Your task to perform on an android device: visit the assistant section in the google photos Image 0: 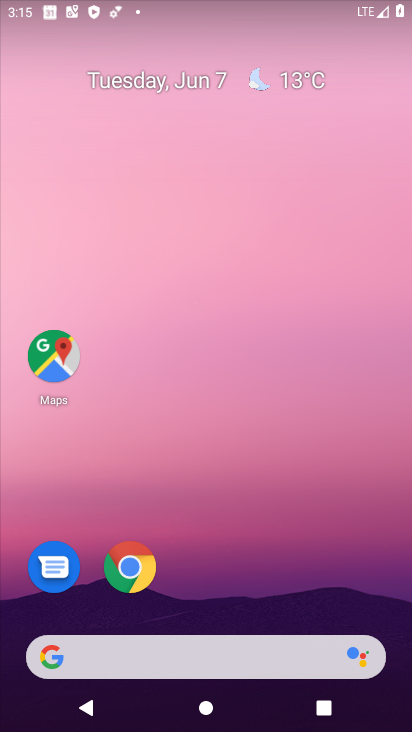
Step 0: drag from (242, 584) to (283, 118)
Your task to perform on an android device: visit the assistant section in the google photos Image 1: 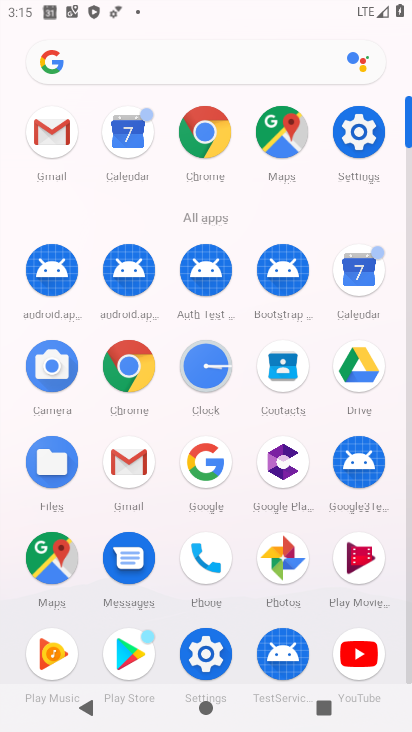
Step 1: click (287, 548)
Your task to perform on an android device: visit the assistant section in the google photos Image 2: 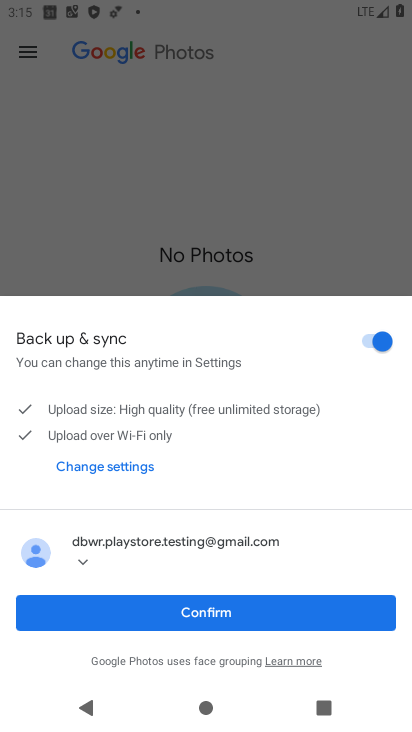
Step 2: click (152, 607)
Your task to perform on an android device: visit the assistant section in the google photos Image 3: 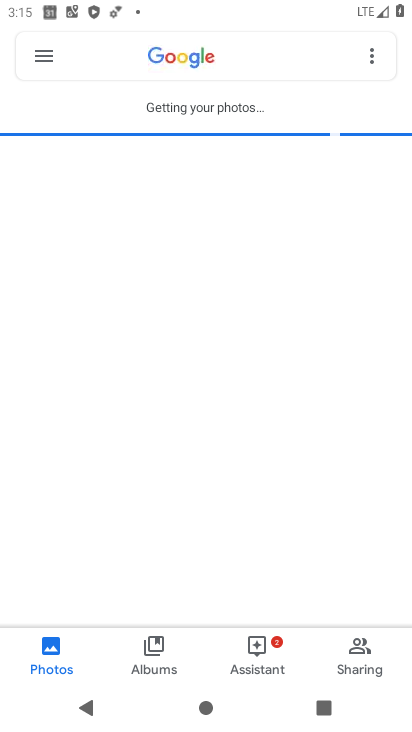
Step 3: click (25, 656)
Your task to perform on an android device: visit the assistant section in the google photos Image 4: 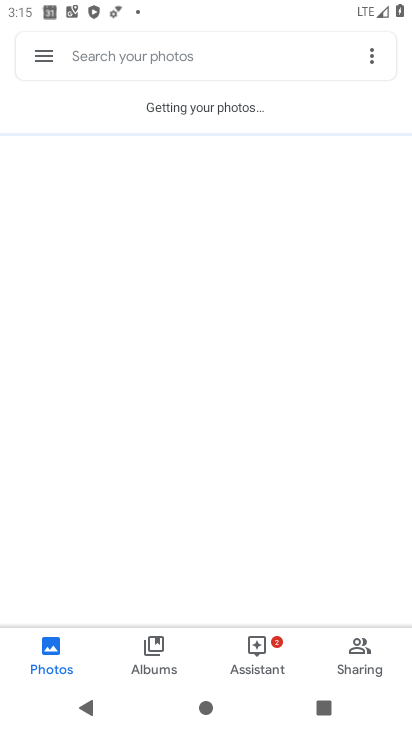
Step 4: task complete